Your task to perform on an android device: Toggle the flashlight Image 0: 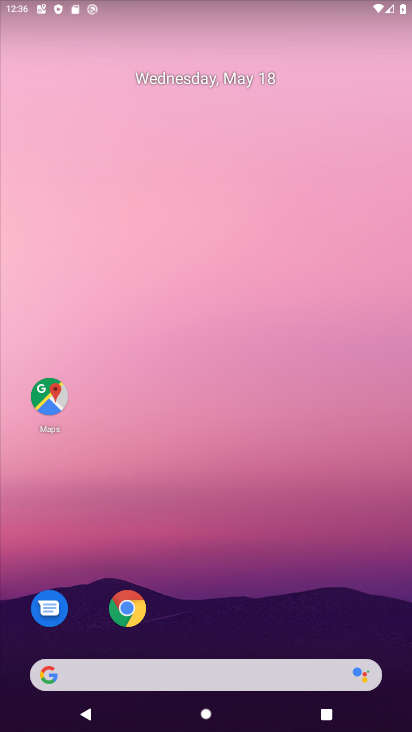
Step 0: drag from (220, 11) to (215, 622)
Your task to perform on an android device: Toggle the flashlight Image 1: 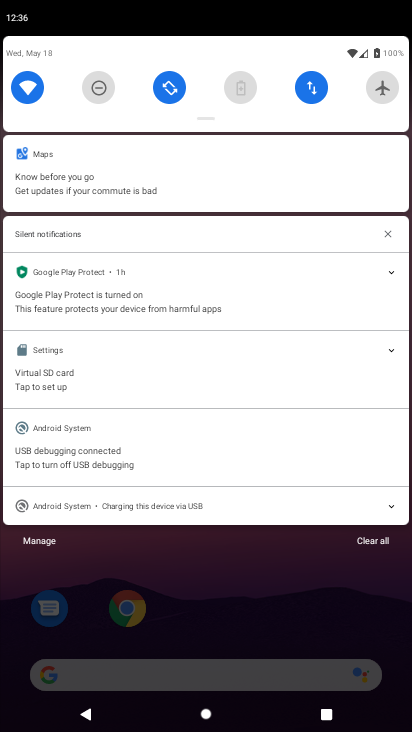
Step 1: task complete